Your task to perform on an android device: Open settings on Google Maps Image 0: 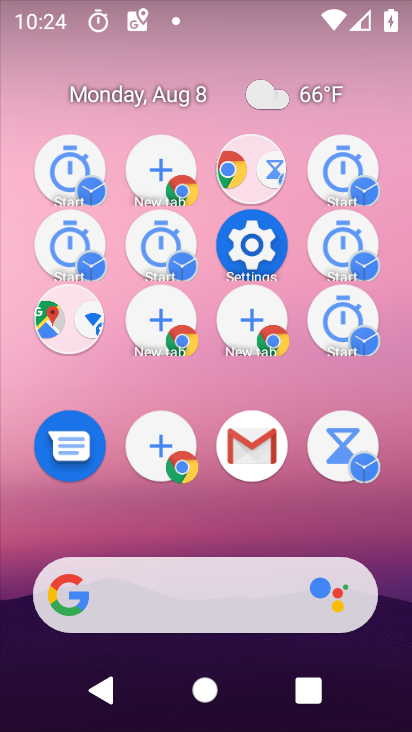
Step 0: drag from (240, 407) to (291, 340)
Your task to perform on an android device: Open settings on Google Maps Image 1: 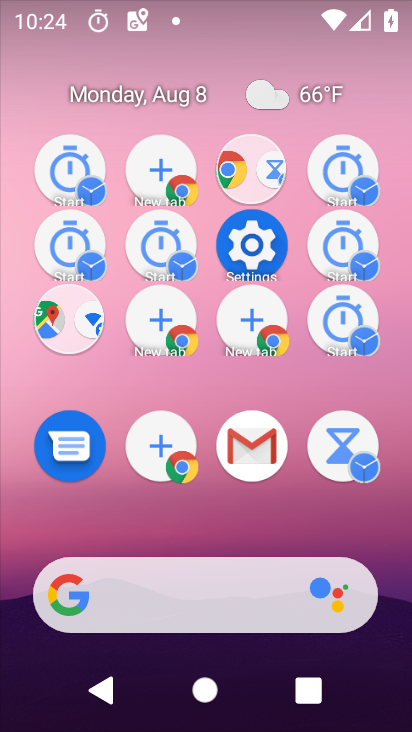
Step 1: drag from (285, 313) to (256, 109)
Your task to perform on an android device: Open settings on Google Maps Image 2: 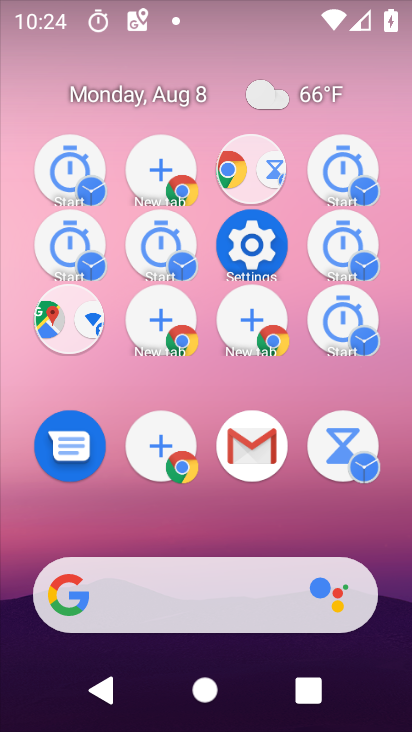
Step 2: drag from (235, 450) to (146, 203)
Your task to perform on an android device: Open settings on Google Maps Image 3: 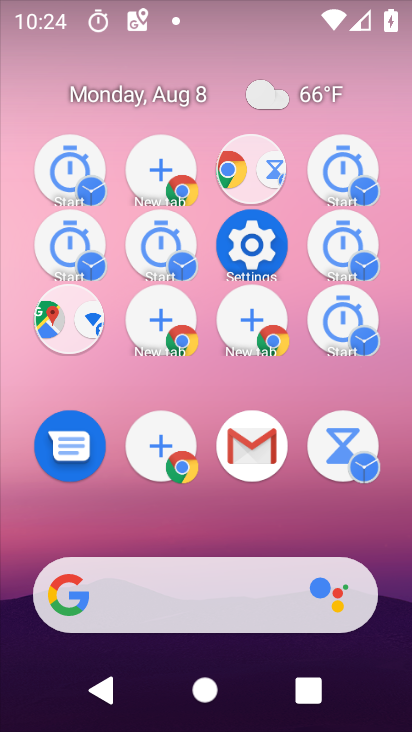
Step 3: drag from (270, 602) to (209, 158)
Your task to perform on an android device: Open settings on Google Maps Image 4: 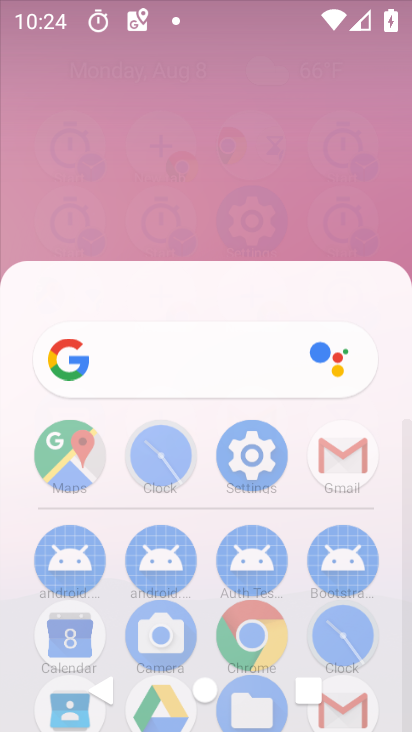
Step 4: drag from (225, 445) to (218, 152)
Your task to perform on an android device: Open settings on Google Maps Image 5: 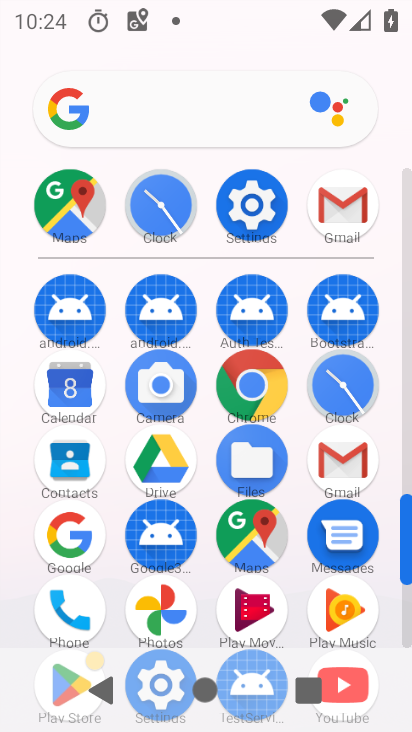
Step 5: drag from (251, 559) to (227, 229)
Your task to perform on an android device: Open settings on Google Maps Image 6: 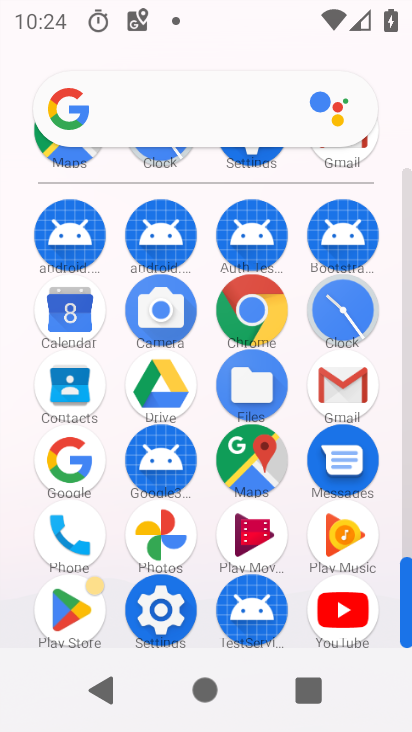
Step 6: click (255, 535)
Your task to perform on an android device: Open settings on Google Maps Image 7: 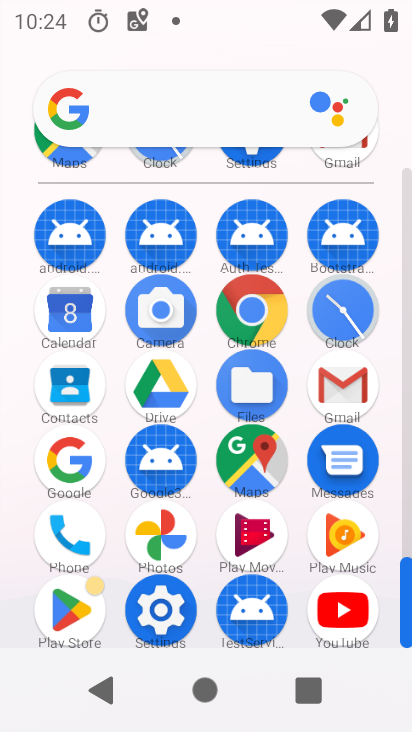
Step 7: click (245, 448)
Your task to perform on an android device: Open settings on Google Maps Image 8: 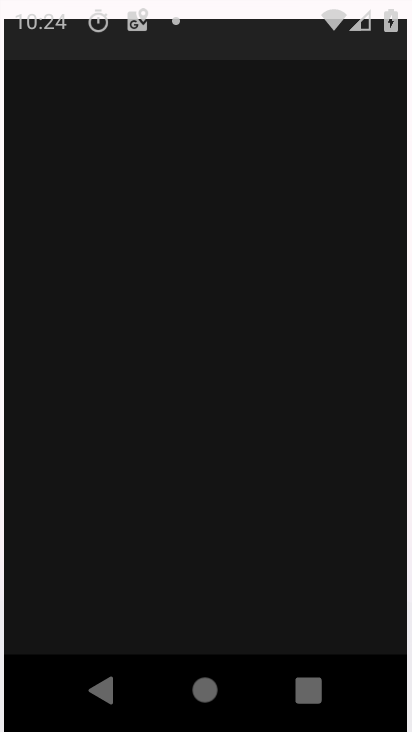
Step 8: click (246, 449)
Your task to perform on an android device: Open settings on Google Maps Image 9: 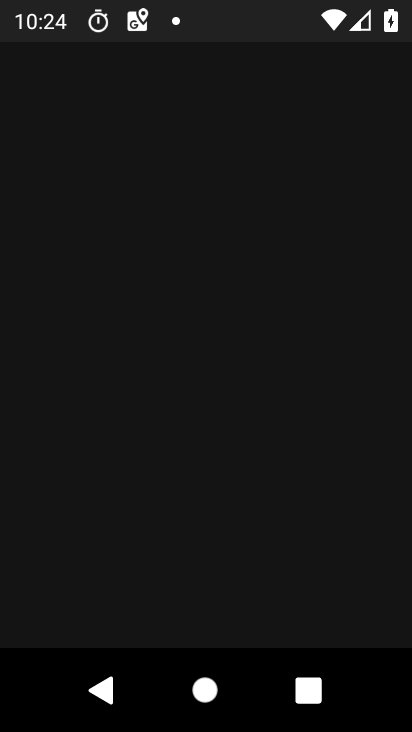
Step 9: click (257, 451)
Your task to perform on an android device: Open settings on Google Maps Image 10: 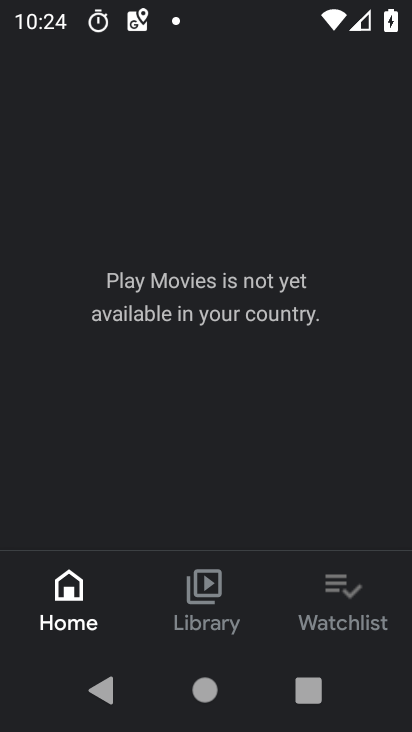
Step 10: press back button
Your task to perform on an android device: Open settings on Google Maps Image 11: 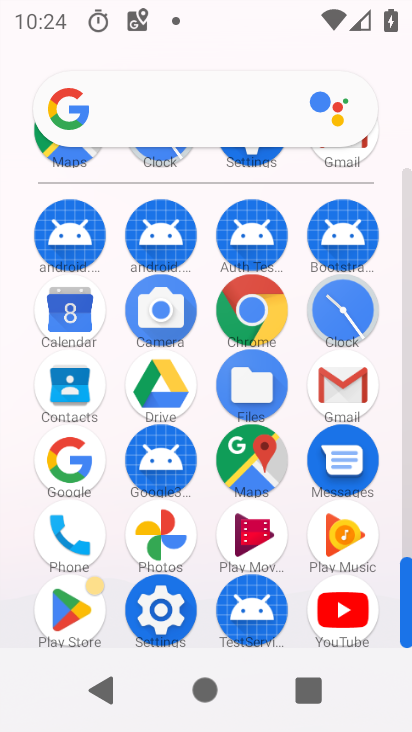
Step 11: click (257, 441)
Your task to perform on an android device: Open settings on Google Maps Image 12: 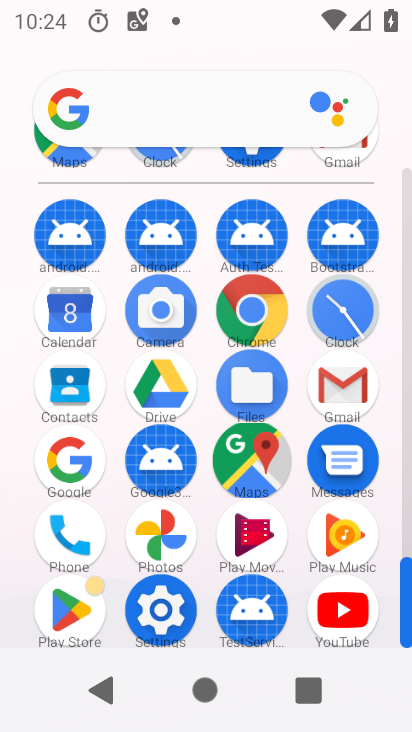
Step 12: click (253, 459)
Your task to perform on an android device: Open settings on Google Maps Image 13: 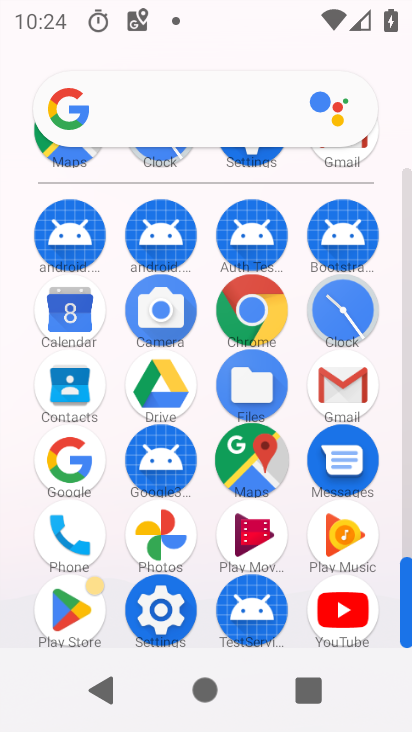
Step 13: click (247, 468)
Your task to perform on an android device: Open settings on Google Maps Image 14: 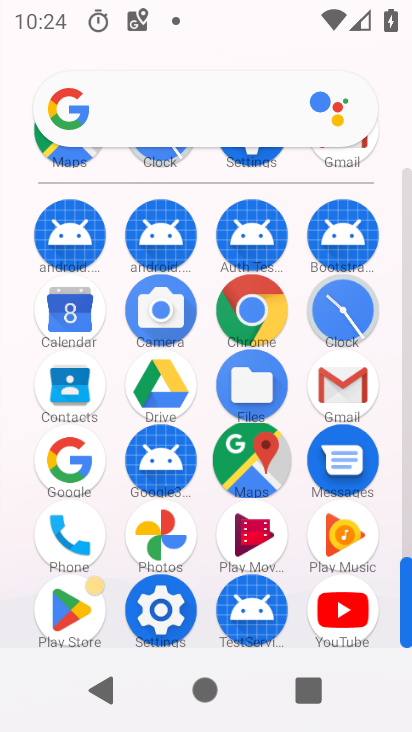
Step 14: click (249, 468)
Your task to perform on an android device: Open settings on Google Maps Image 15: 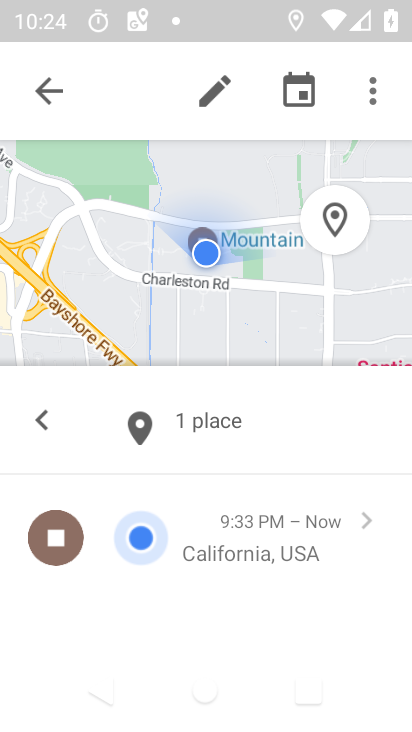
Step 15: click (368, 97)
Your task to perform on an android device: Open settings on Google Maps Image 16: 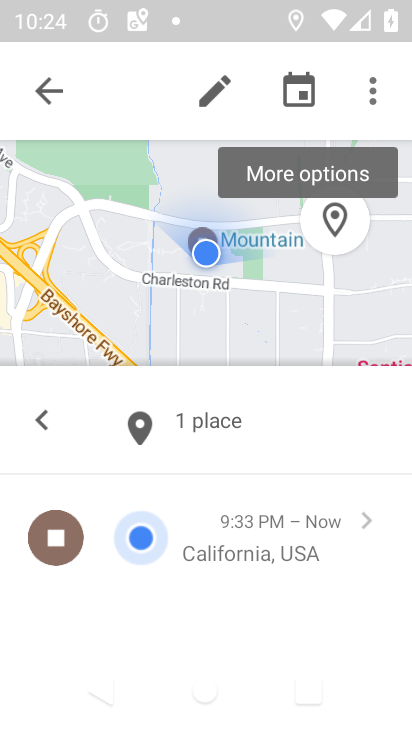
Step 16: click (371, 99)
Your task to perform on an android device: Open settings on Google Maps Image 17: 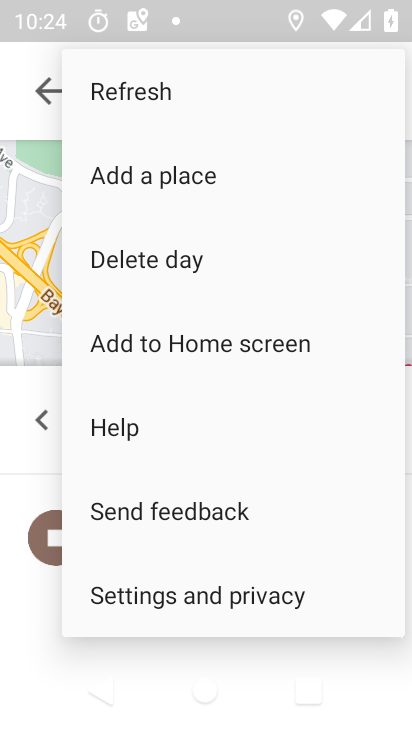
Step 17: drag from (169, 461) to (195, 191)
Your task to perform on an android device: Open settings on Google Maps Image 18: 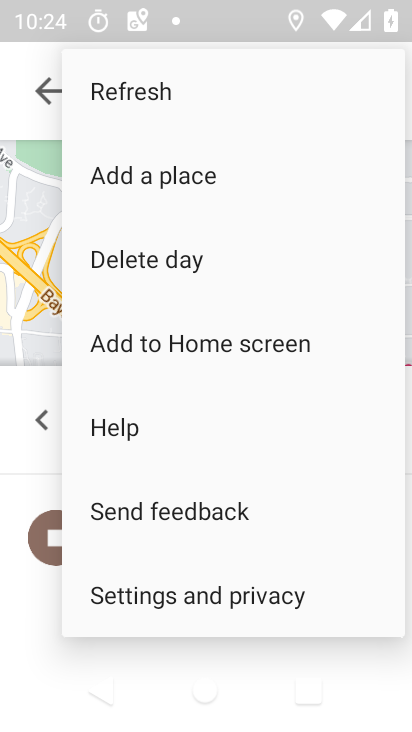
Step 18: drag from (184, 512) to (159, 150)
Your task to perform on an android device: Open settings on Google Maps Image 19: 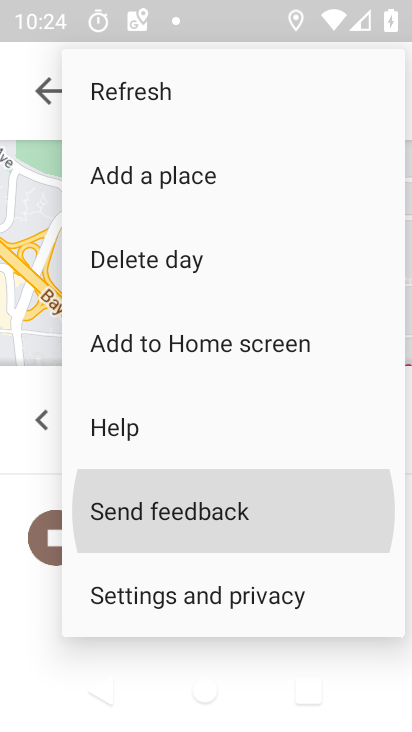
Step 19: drag from (244, 509) to (298, 222)
Your task to perform on an android device: Open settings on Google Maps Image 20: 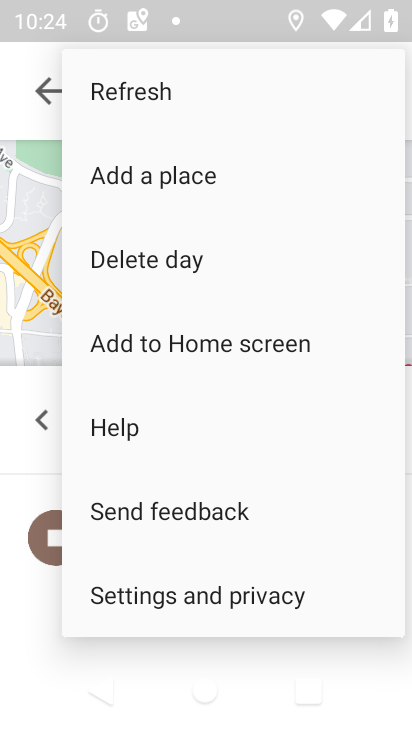
Step 20: click (137, 599)
Your task to perform on an android device: Open settings on Google Maps Image 21: 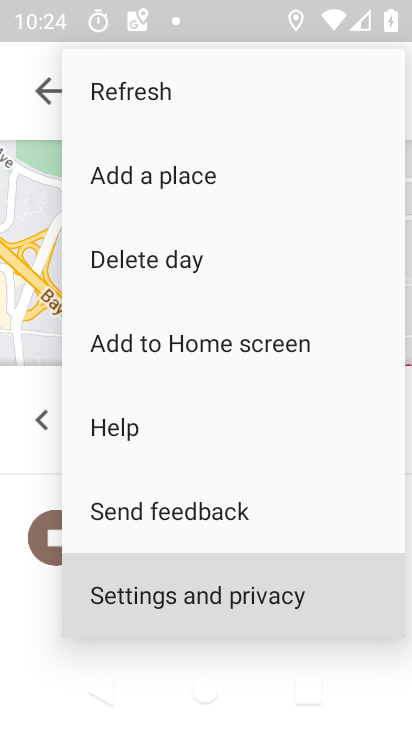
Step 21: click (141, 599)
Your task to perform on an android device: Open settings on Google Maps Image 22: 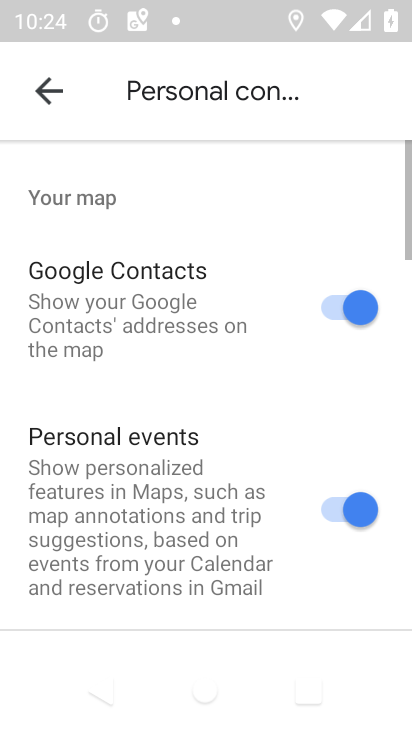
Step 22: drag from (177, 463) to (137, 226)
Your task to perform on an android device: Open settings on Google Maps Image 23: 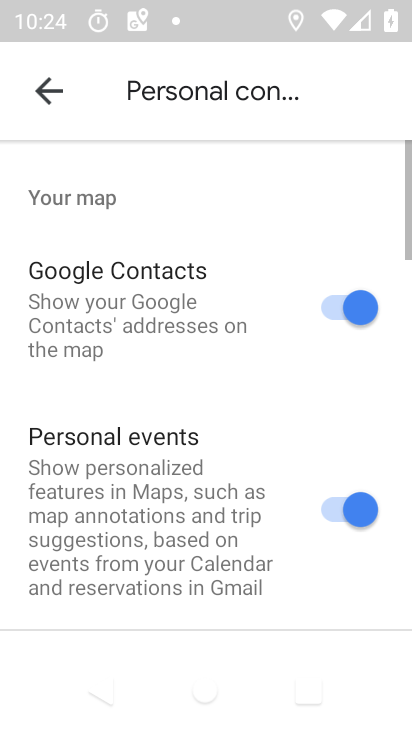
Step 23: drag from (150, 292) to (139, 189)
Your task to perform on an android device: Open settings on Google Maps Image 24: 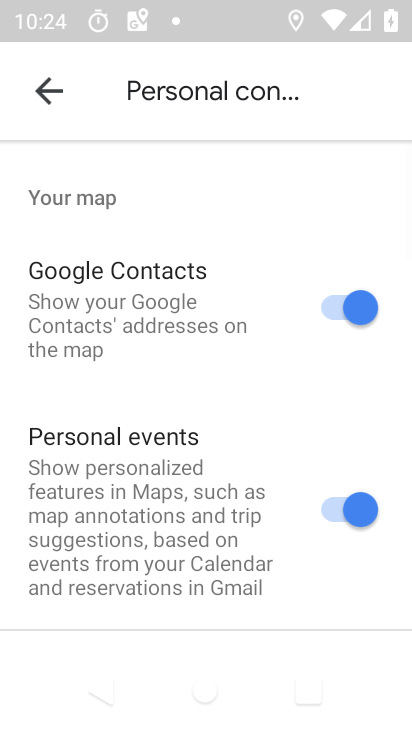
Step 24: drag from (168, 477) to (160, 157)
Your task to perform on an android device: Open settings on Google Maps Image 25: 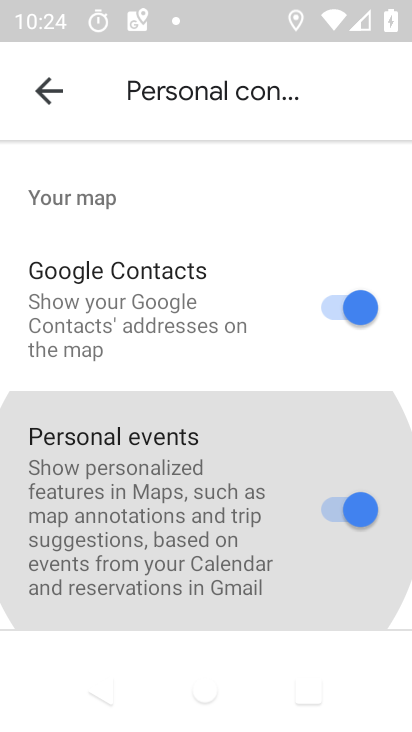
Step 25: drag from (208, 484) to (222, 230)
Your task to perform on an android device: Open settings on Google Maps Image 26: 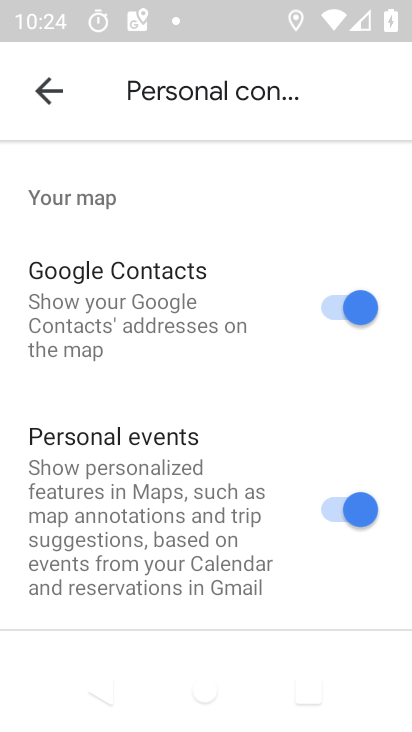
Step 26: drag from (240, 476) to (198, 235)
Your task to perform on an android device: Open settings on Google Maps Image 27: 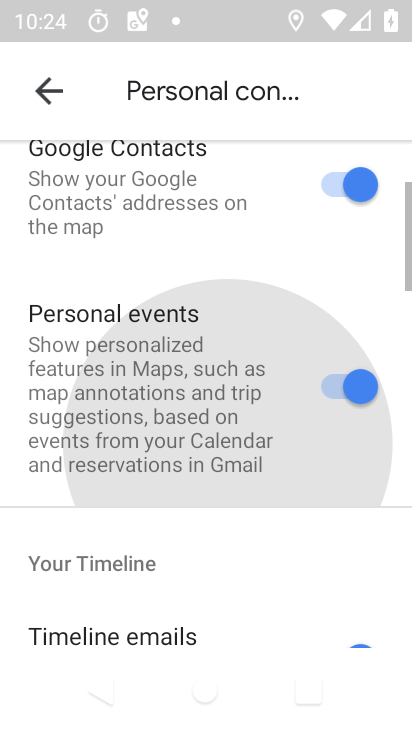
Step 27: drag from (220, 522) to (172, 169)
Your task to perform on an android device: Open settings on Google Maps Image 28: 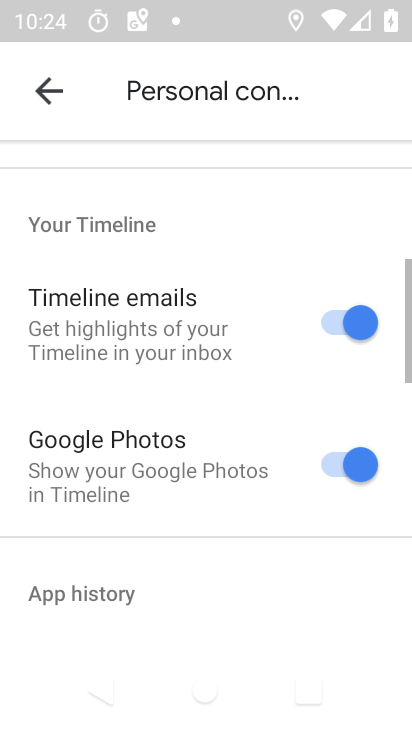
Step 28: click (187, 133)
Your task to perform on an android device: Open settings on Google Maps Image 29: 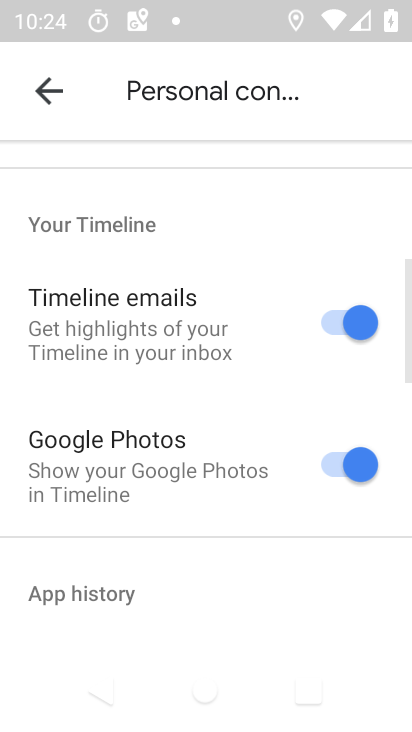
Step 29: click (223, 118)
Your task to perform on an android device: Open settings on Google Maps Image 30: 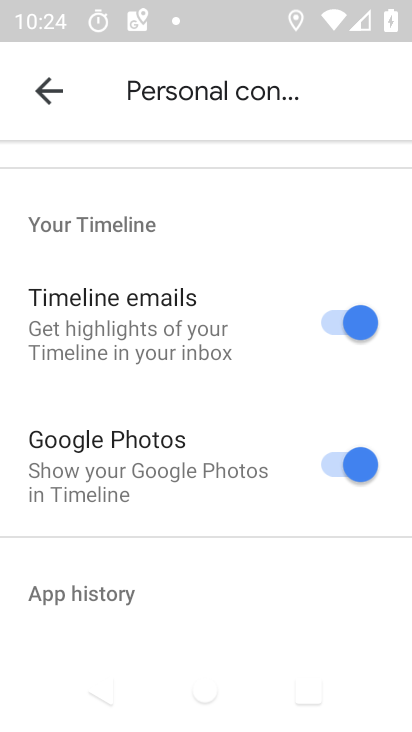
Step 30: task complete